Your task to perform on an android device: Open privacy settings Image 0: 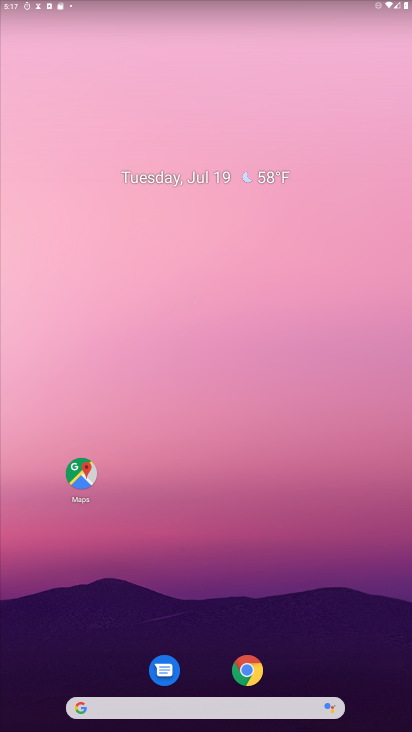
Step 0: drag from (287, 710) to (227, 122)
Your task to perform on an android device: Open privacy settings Image 1: 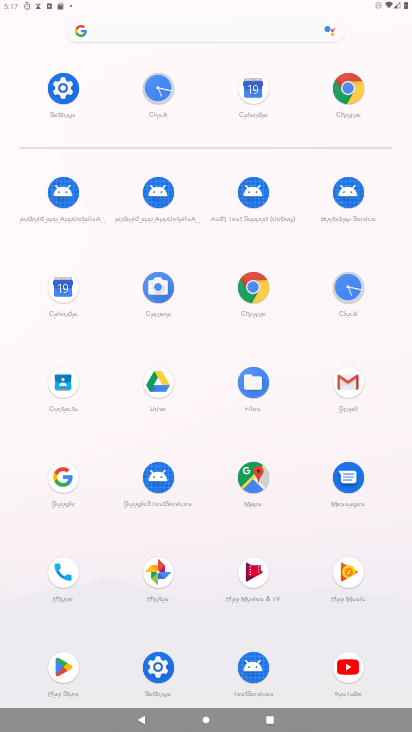
Step 1: click (53, 88)
Your task to perform on an android device: Open privacy settings Image 2: 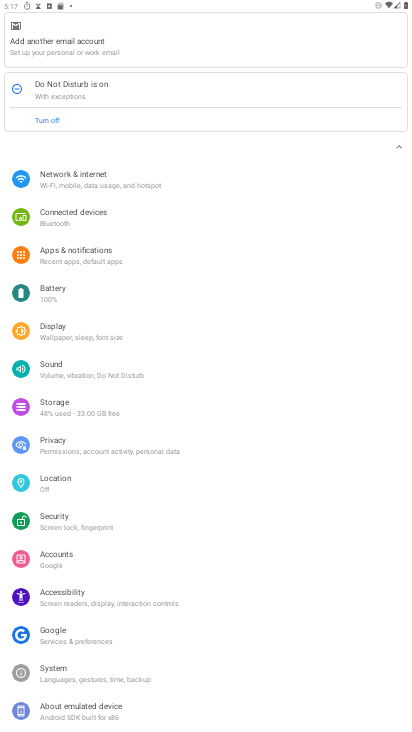
Step 2: click (83, 445)
Your task to perform on an android device: Open privacy settings Image 3: 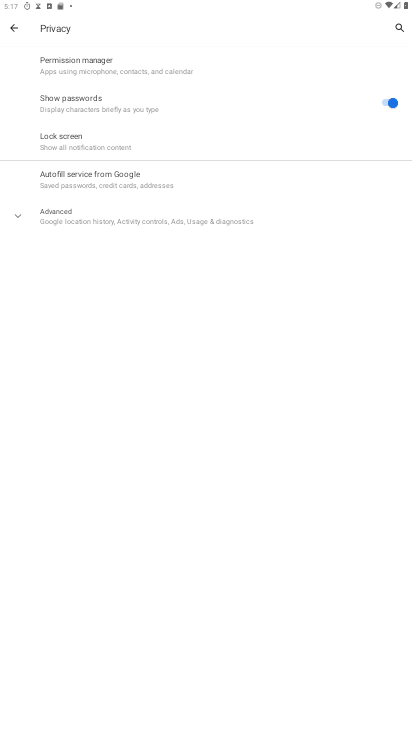
Step 3: task complete